Your task to perform on an android device: open app "Pandora - Music & Podcasts" Image 0: 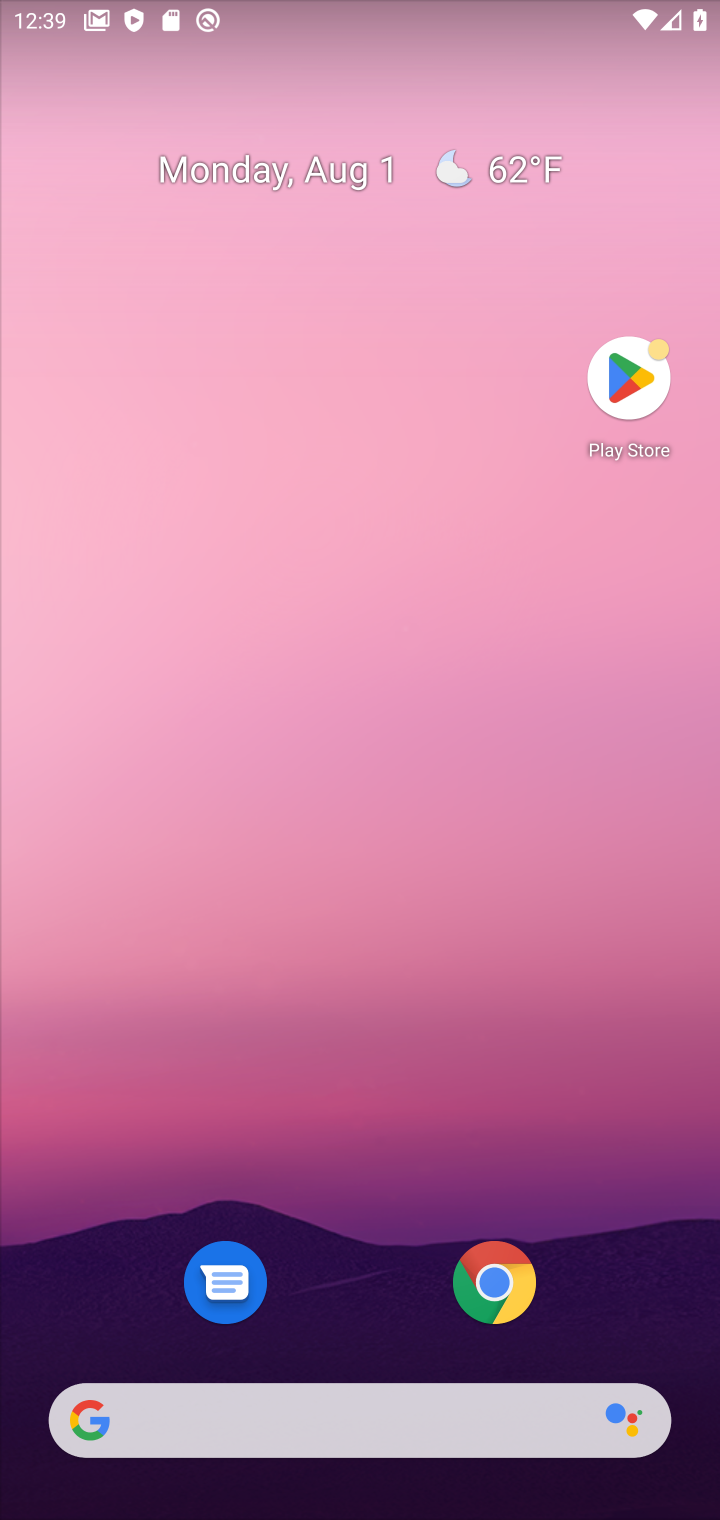
Step 0: drag from (306, 998) to (284, 23)
Your task to perform on an android device: open app "Pandora - Music & Podcasts" Image 1: 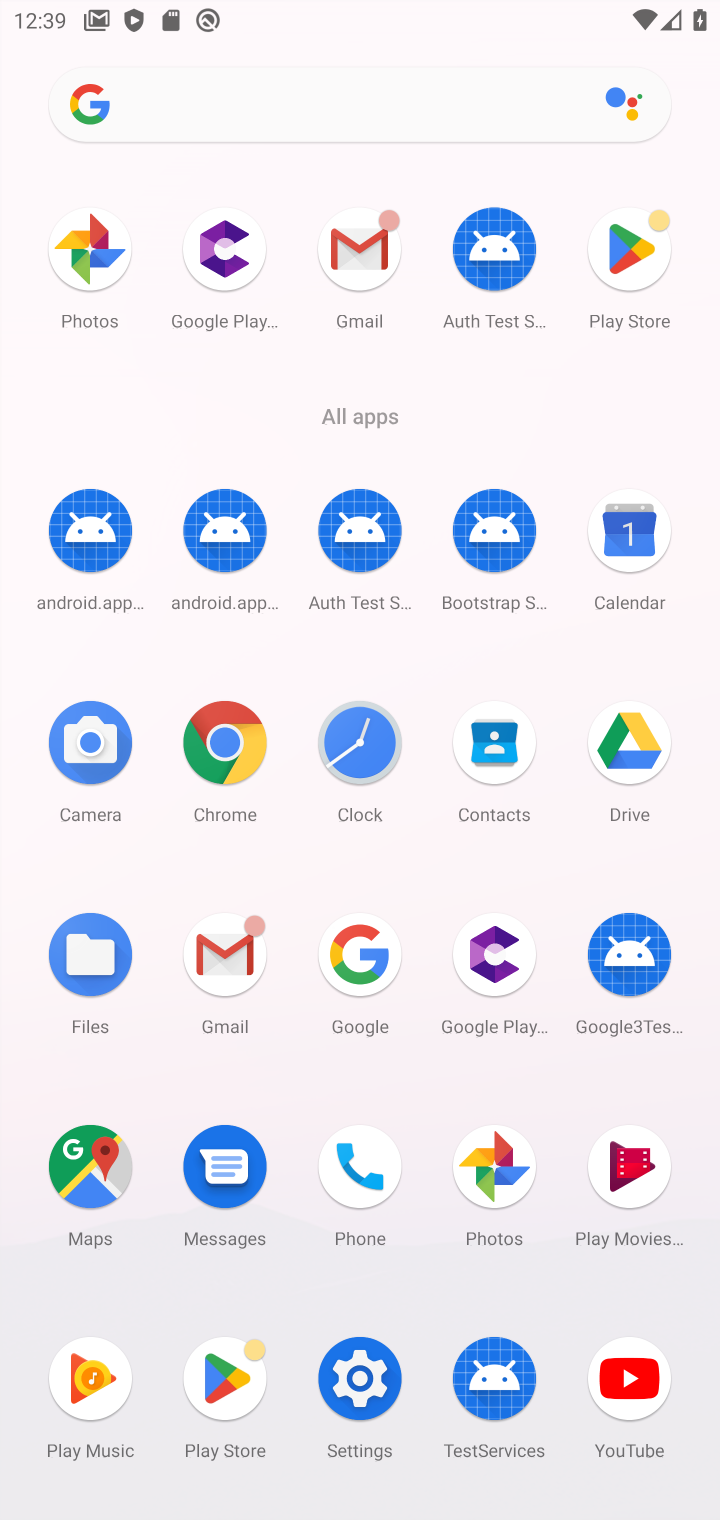
Step 1: click (227, 1376)
Your task to perform on an android device: open app "Pandora - Music & Podcasts" Image 2: 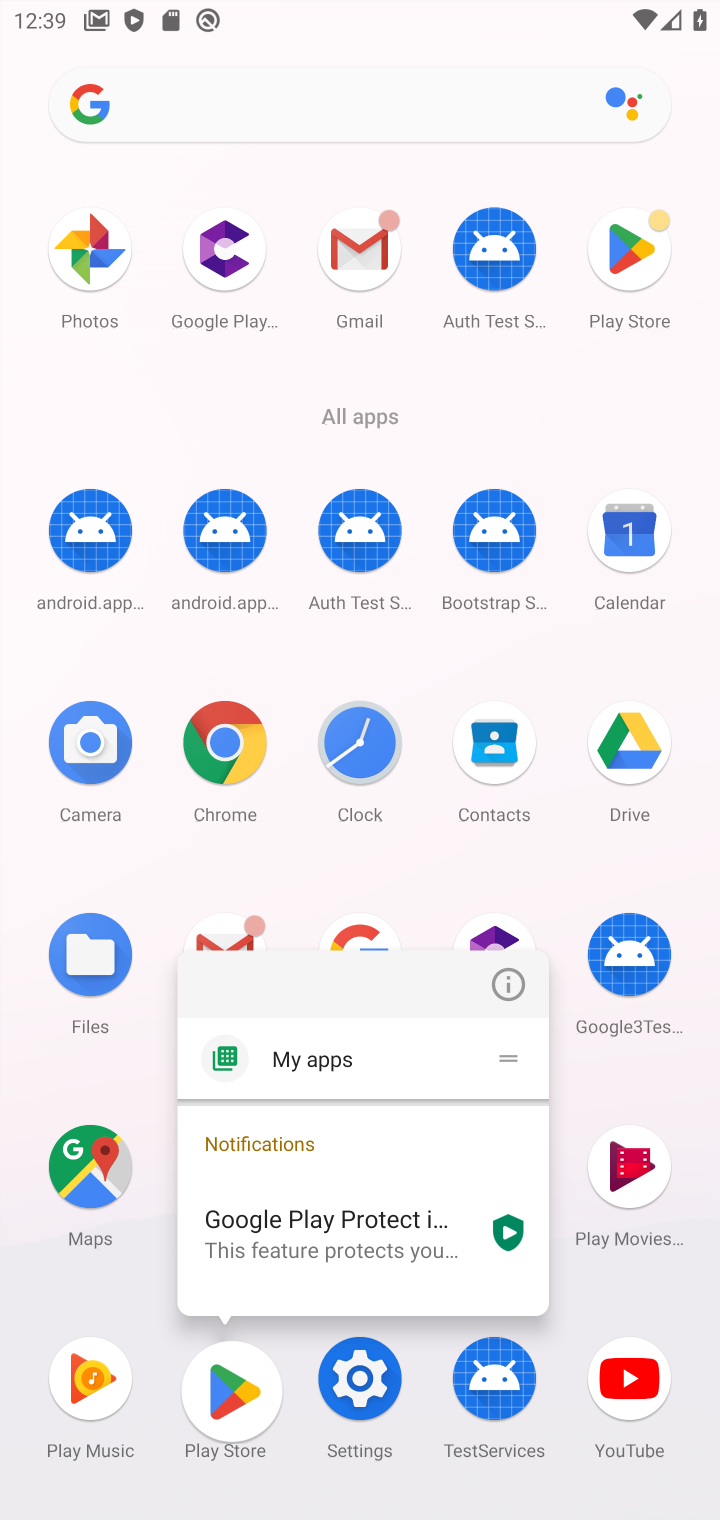
Step 2: click (227, 1391)
Your task to perform on an android device: open app "Pandora - Music & Podcasts" Image 3: 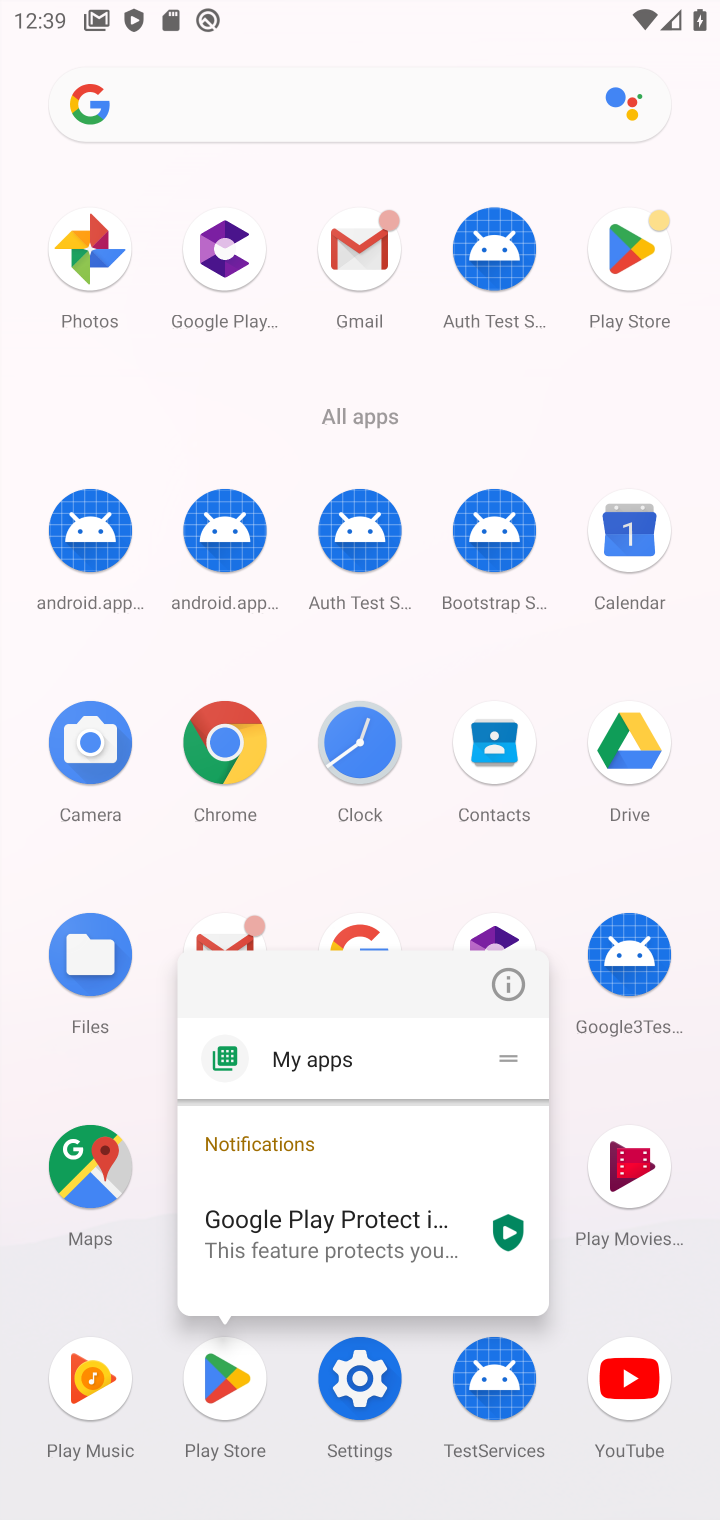
Step 3: click (225, 1370)
Your task to perform on an android device: open app "Pandora - Music & Podcasts" Image 4: 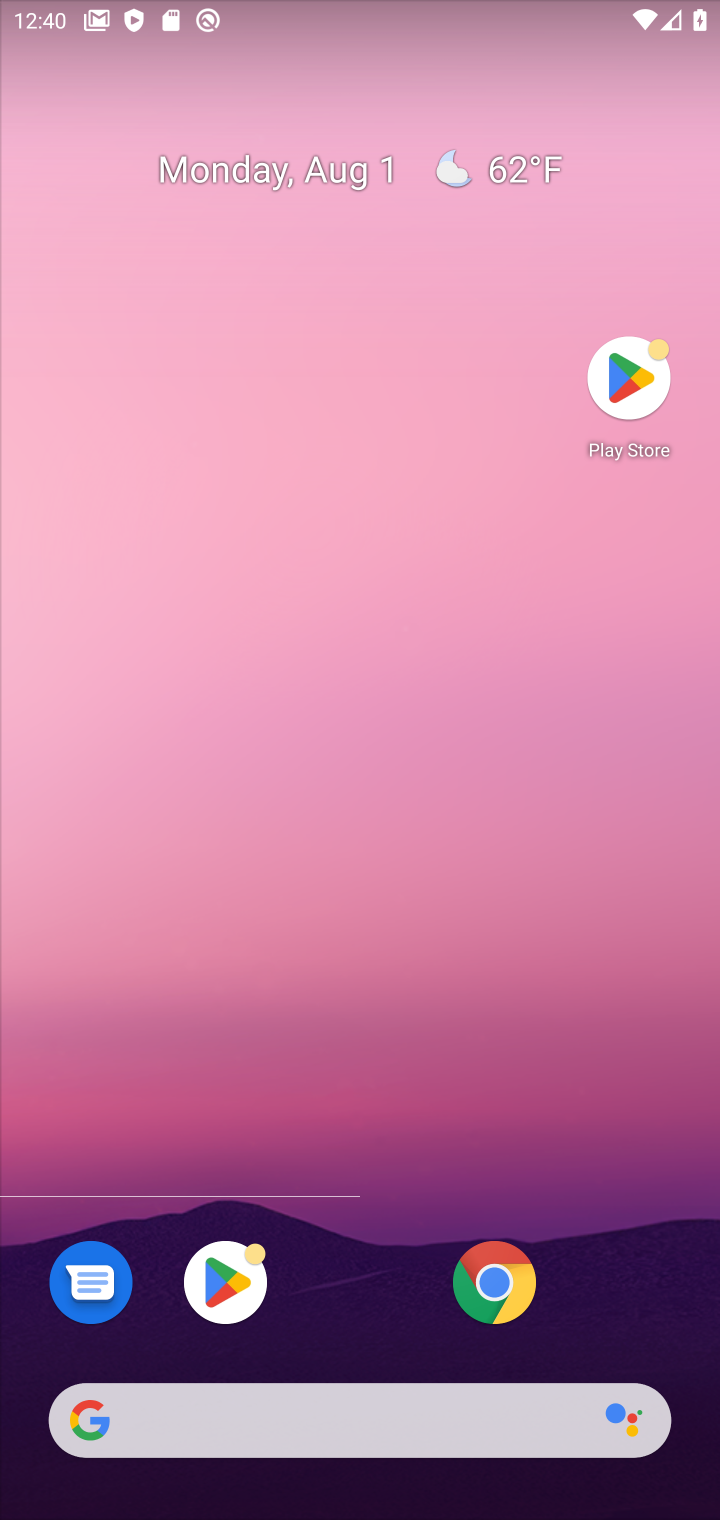
Step 4: click (621, 378)
Your task to perform on an android device: open app "Pandora - Music & Podcasts" Image 5: 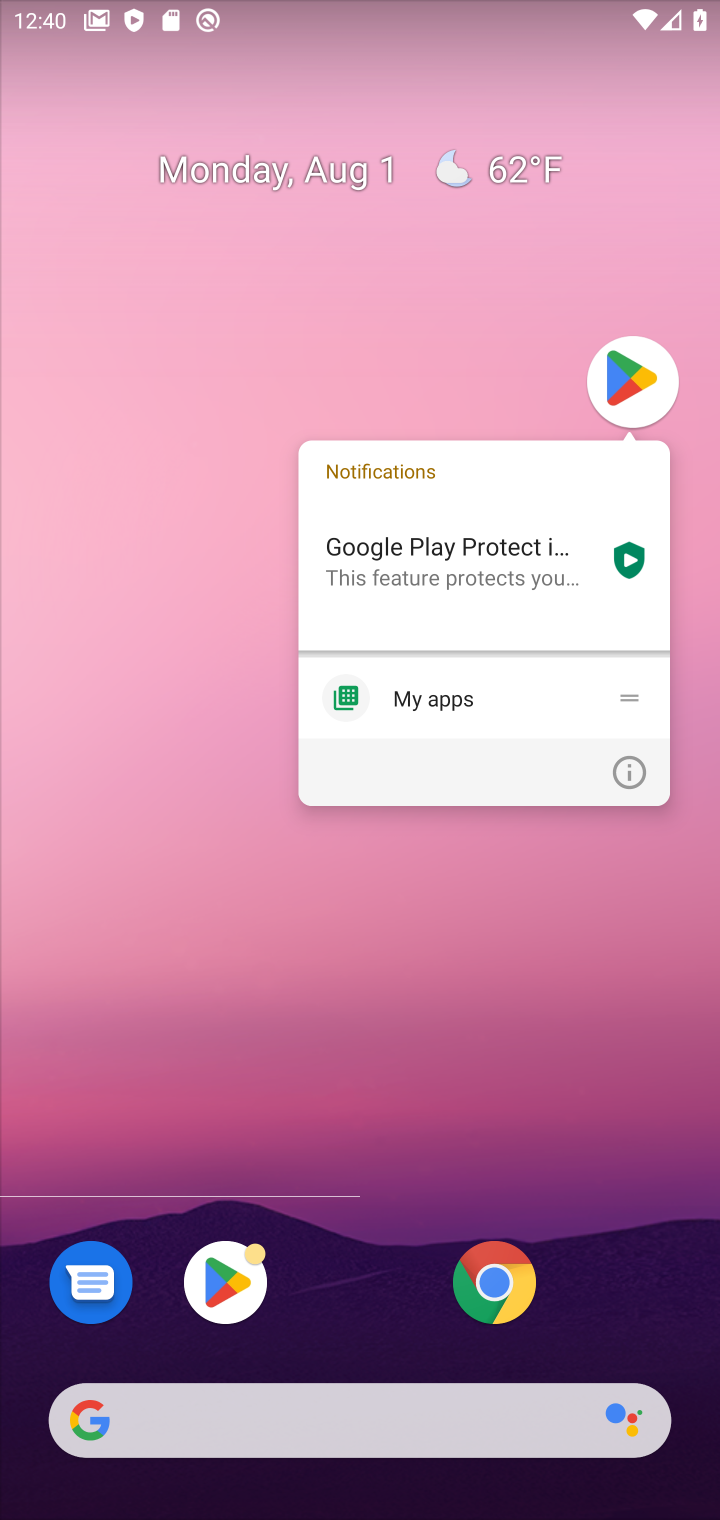
Step 5: click (635, 393)
Your task to perform on an android device: open app "Pandora - Music & Podcasts" Image 6: 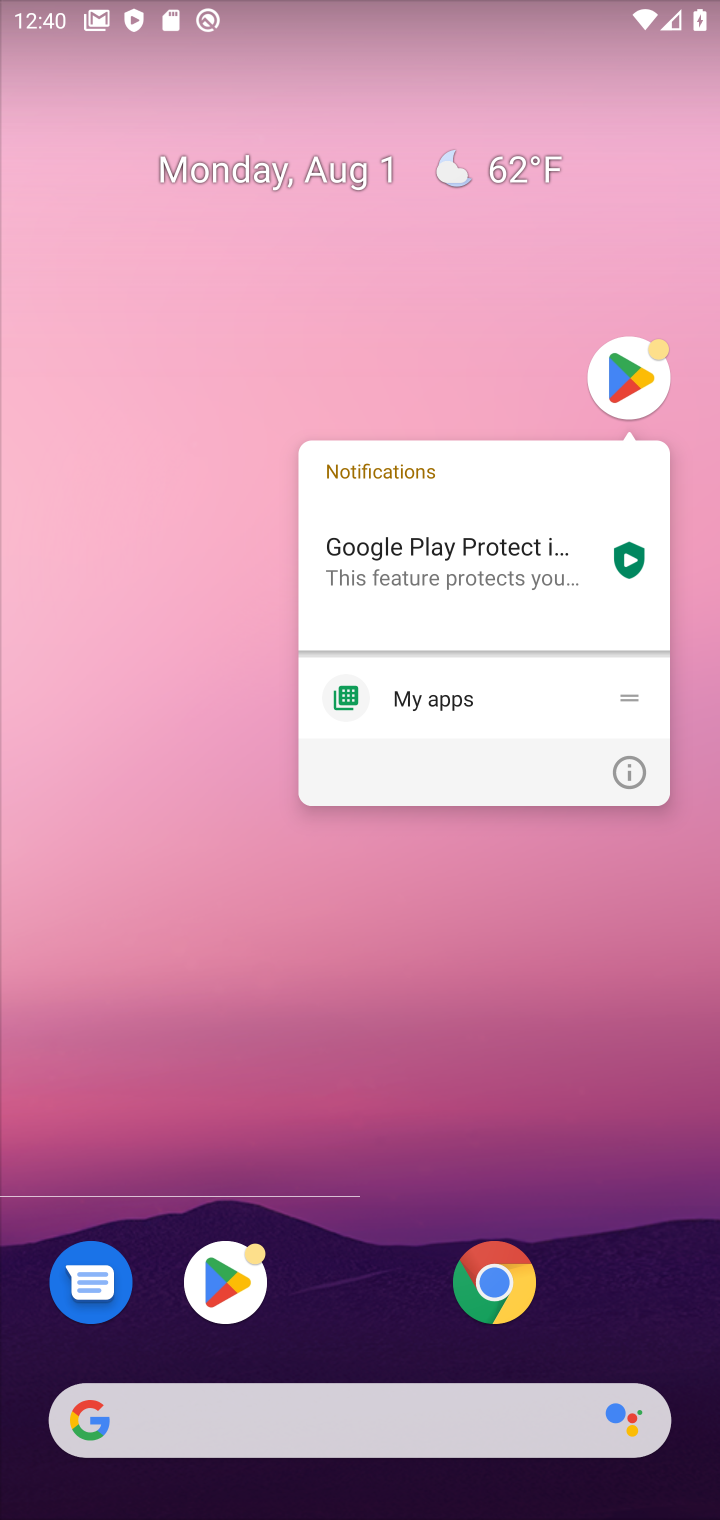
Step 6: click (627, 386)
Your task to perform on an android device: open app "Pandora - Music & Podcasts" Image 7: 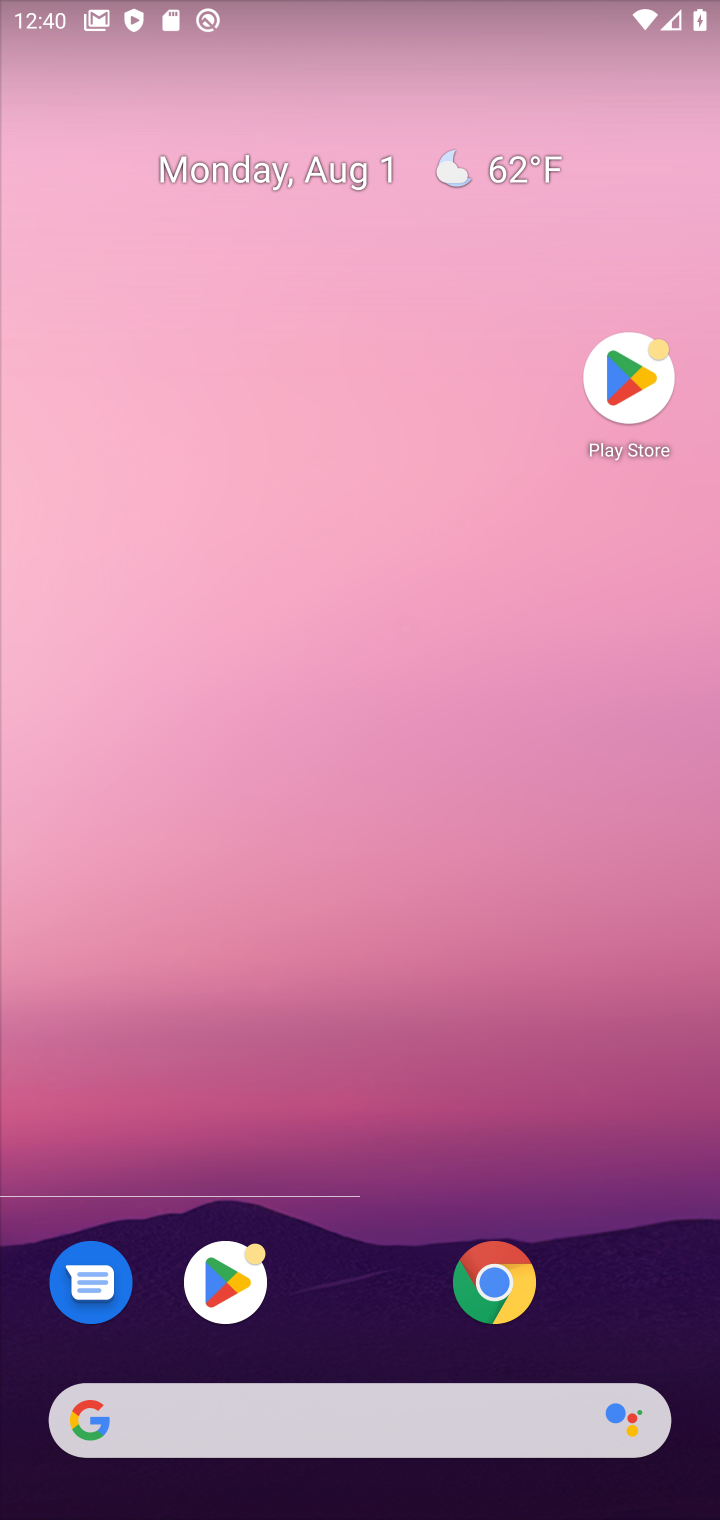
Step 7: click (624, 356)
Your task to perform on an android device: open app "Pandora - Music & Podcasts" Image 8: 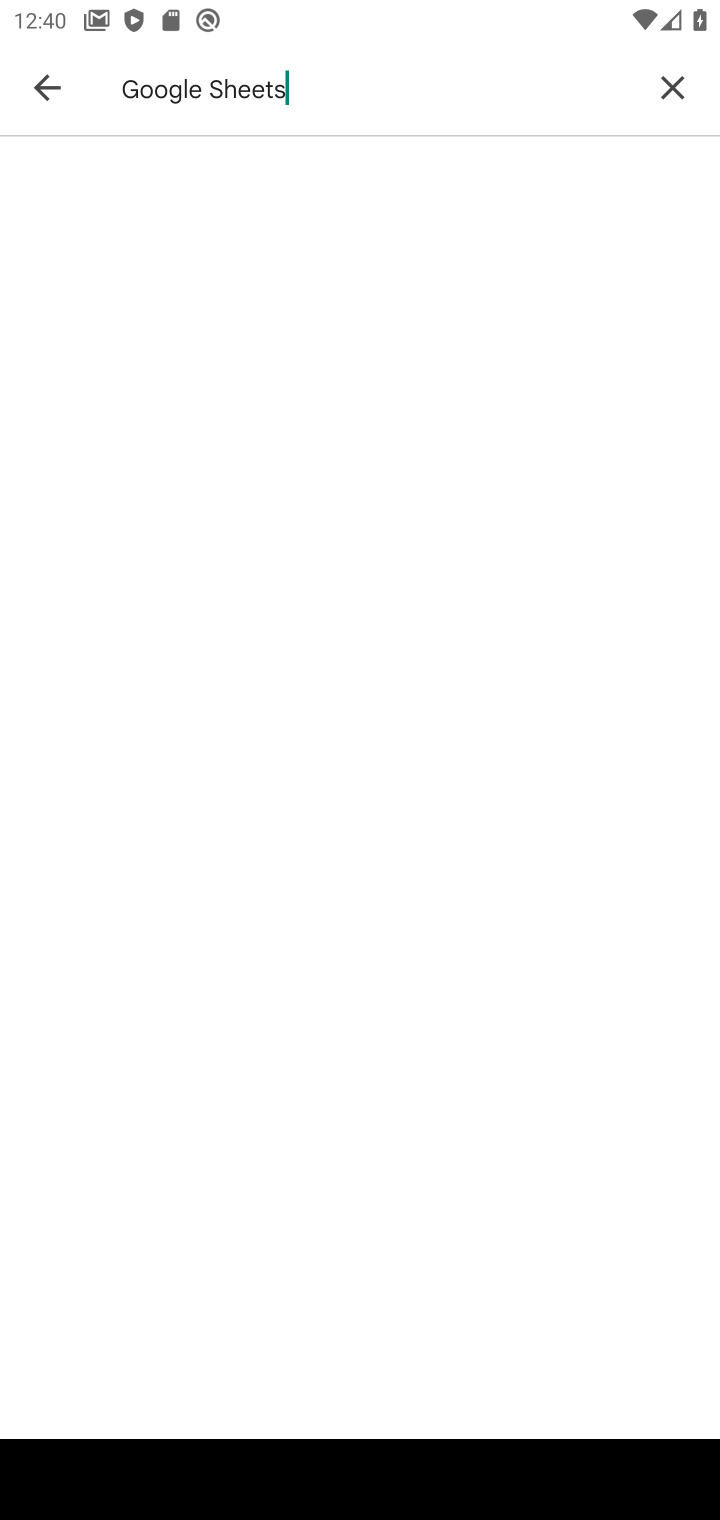
Step 8: click (45, 82)
Your task to perform on an android device: open app "Pandora - Music & Podcasts" Image 9: 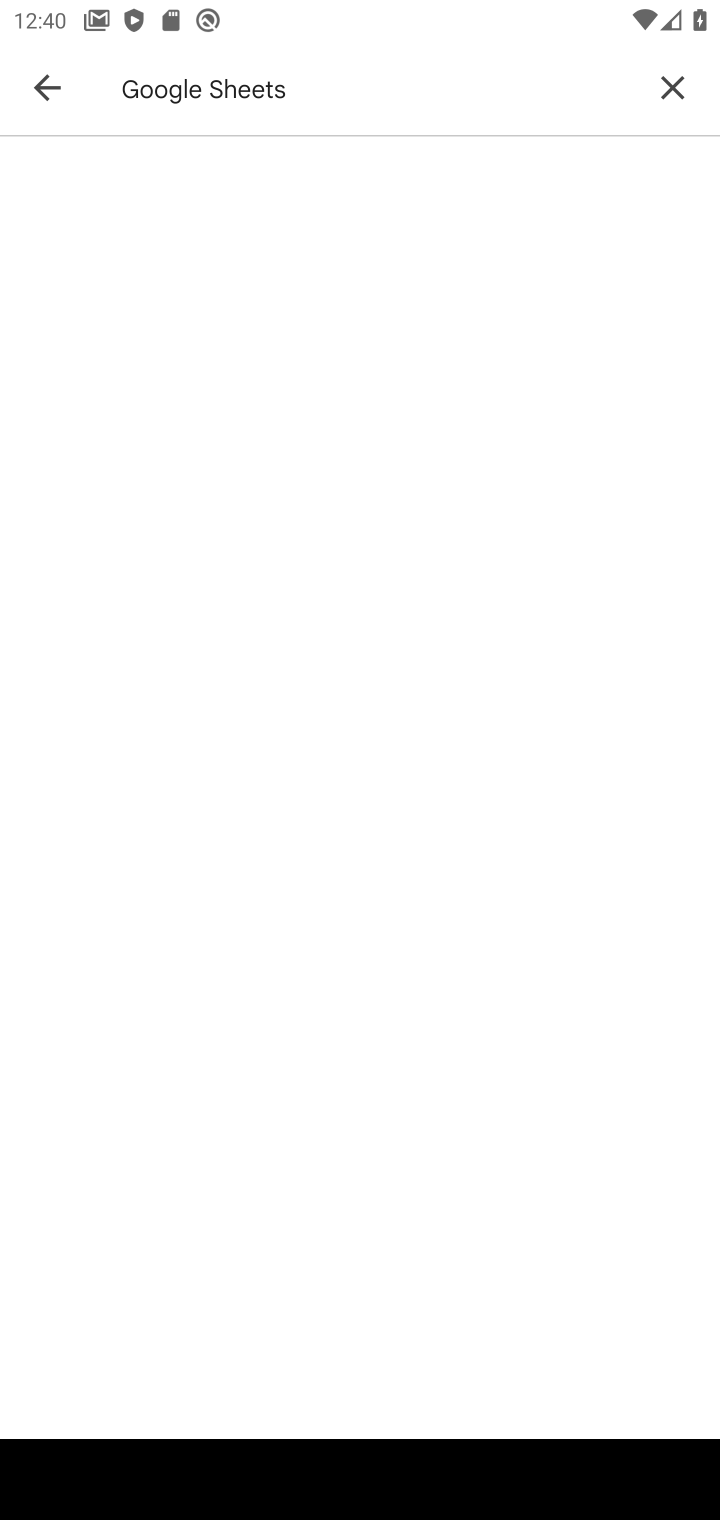
Step 9: click (45, 82)
Your task to perform on an android device: open app "Pandora - Music & Podcasts" Image 10: 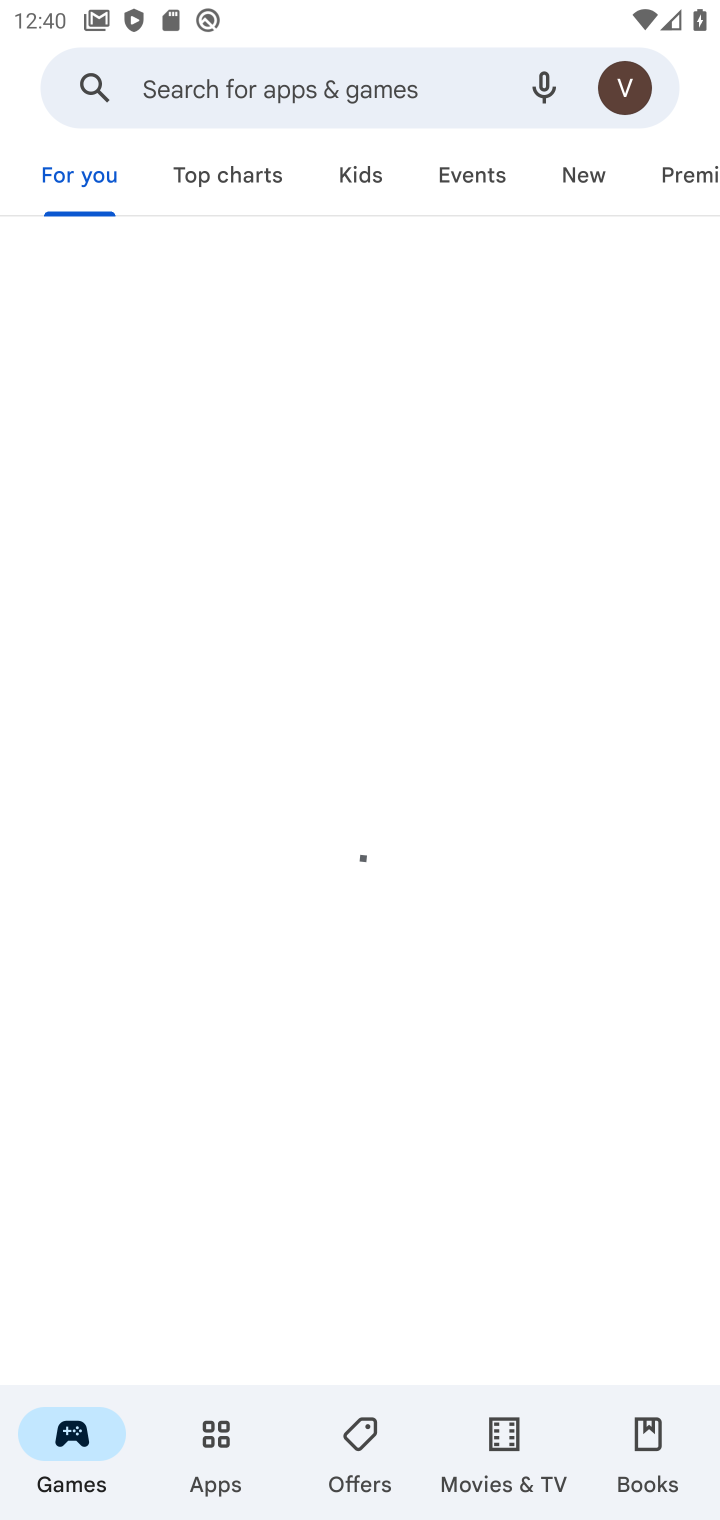
Step 10: click (244, 78)
Your task to perform on an android device: open app "Pandora - Music & Podcasts" Image 11: 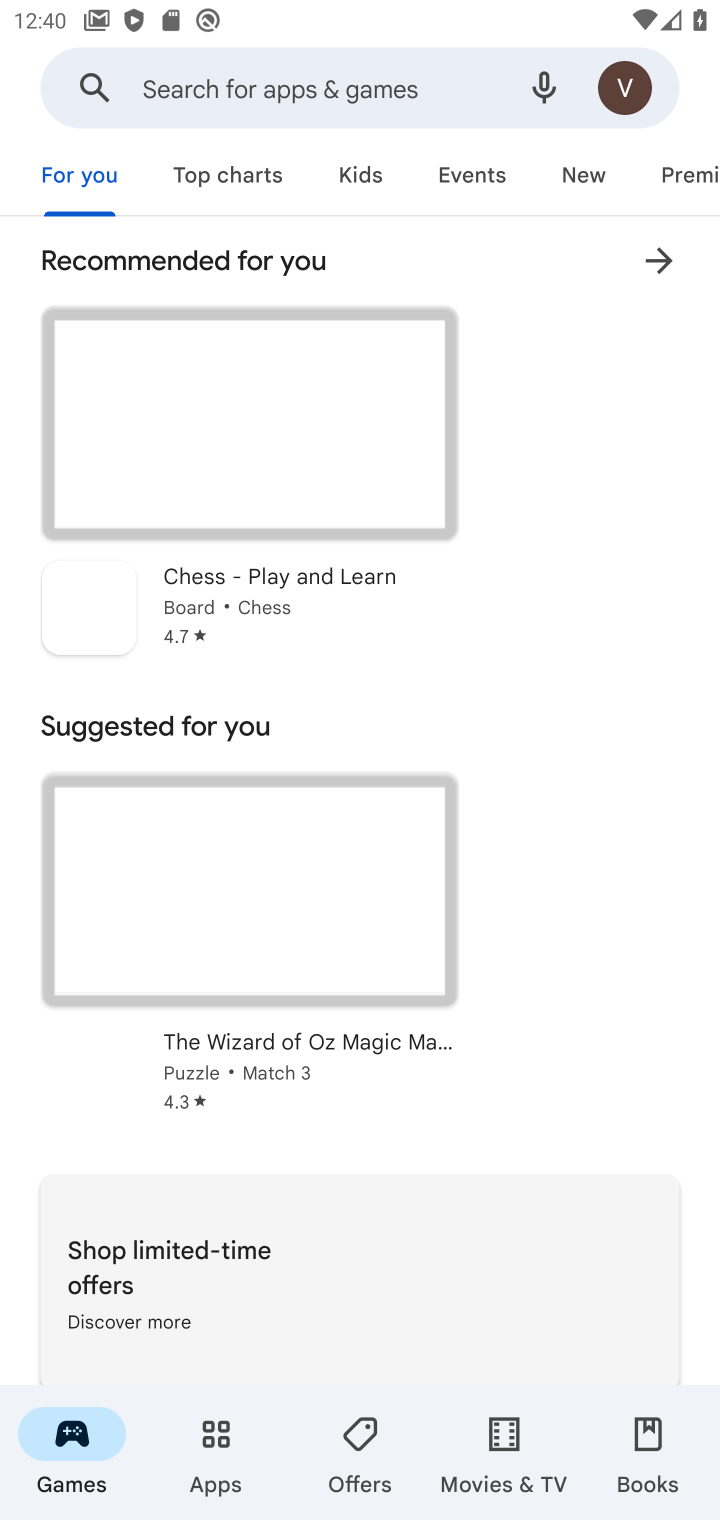
Step 11: click (242, 80)
Your task to perform on an android device: open app "Pandora - Music & Podcasts" Image 12: 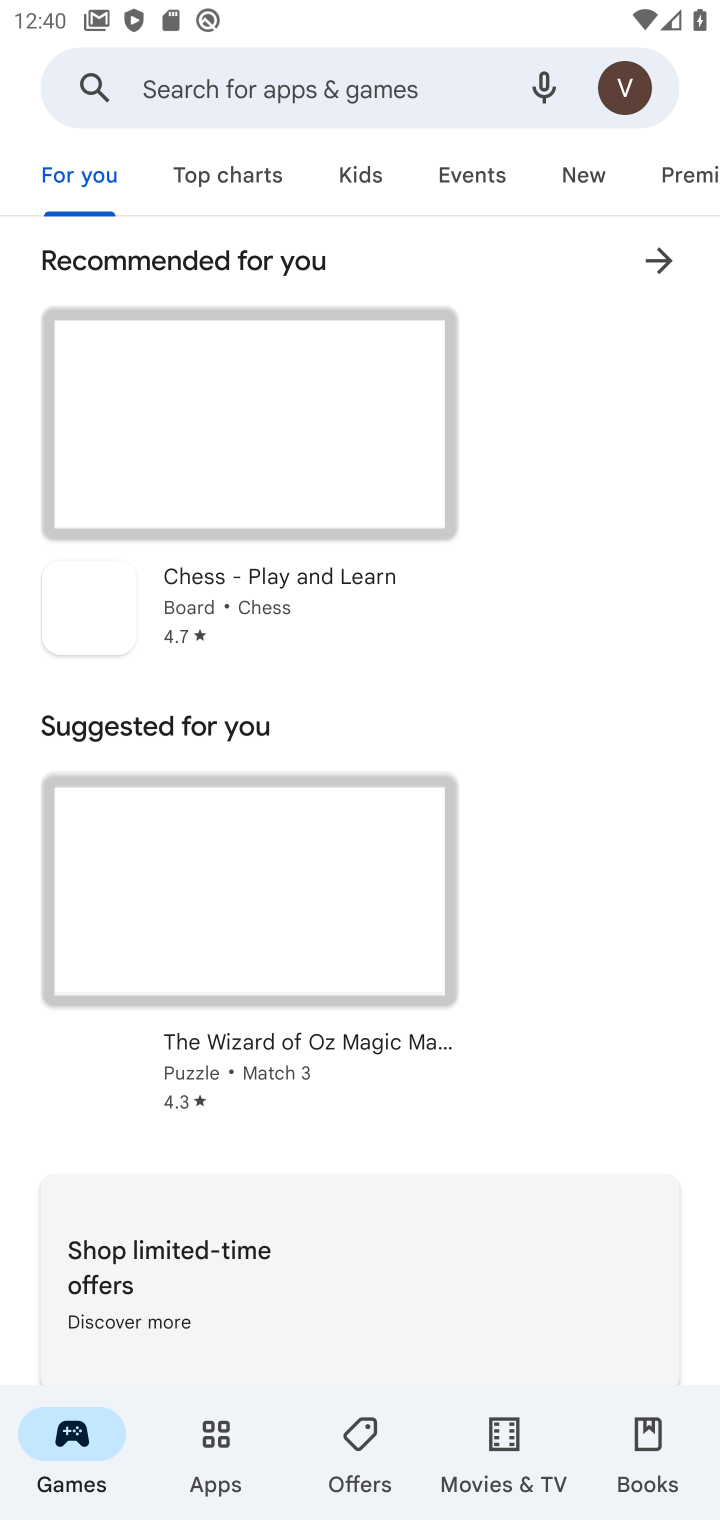
Step 12: click (242, 80)
Your task to perform on an android device: open app "Pandora - Music & Podcasts" Image 13: 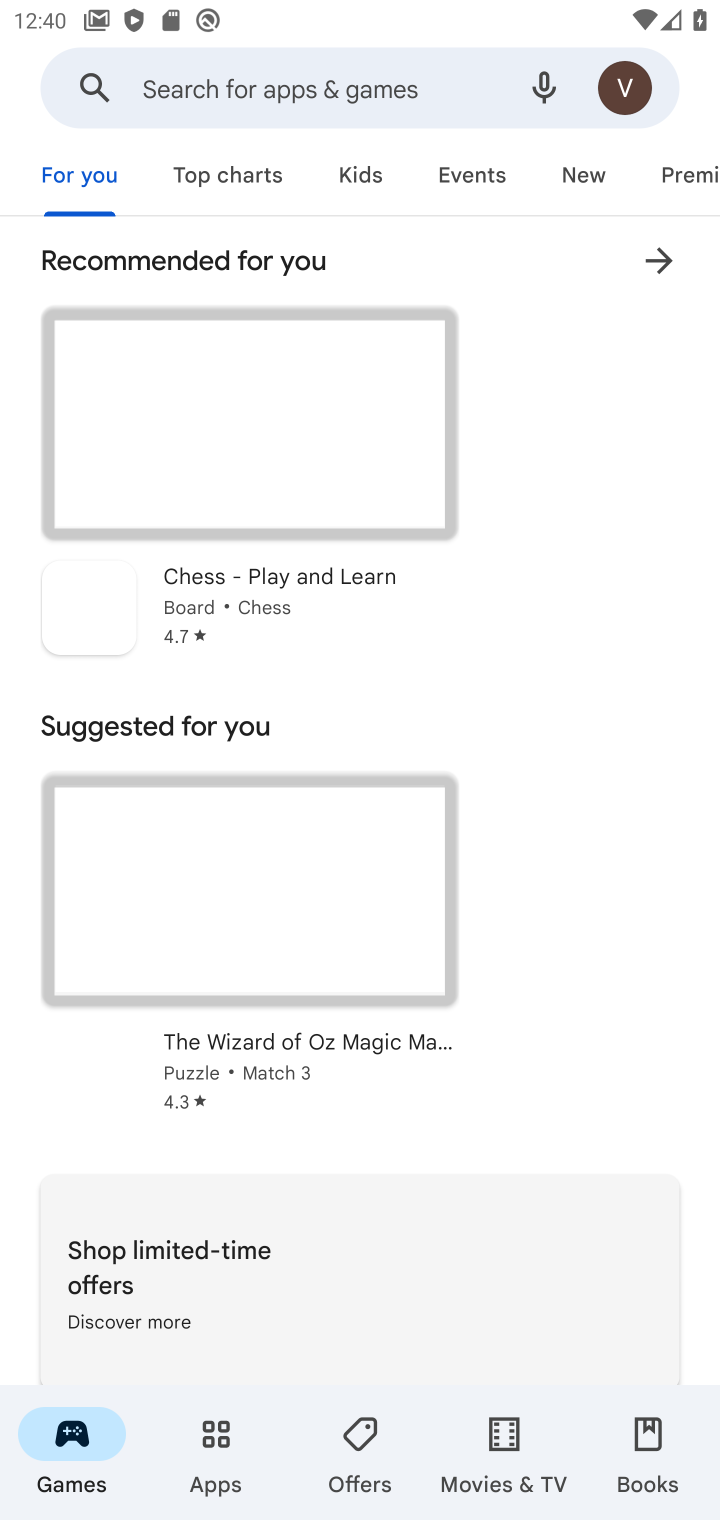
Step 13: click (242, 81)
Your task to perform on an android device: open app "Pandora - Music & Podcasts" Image 14: 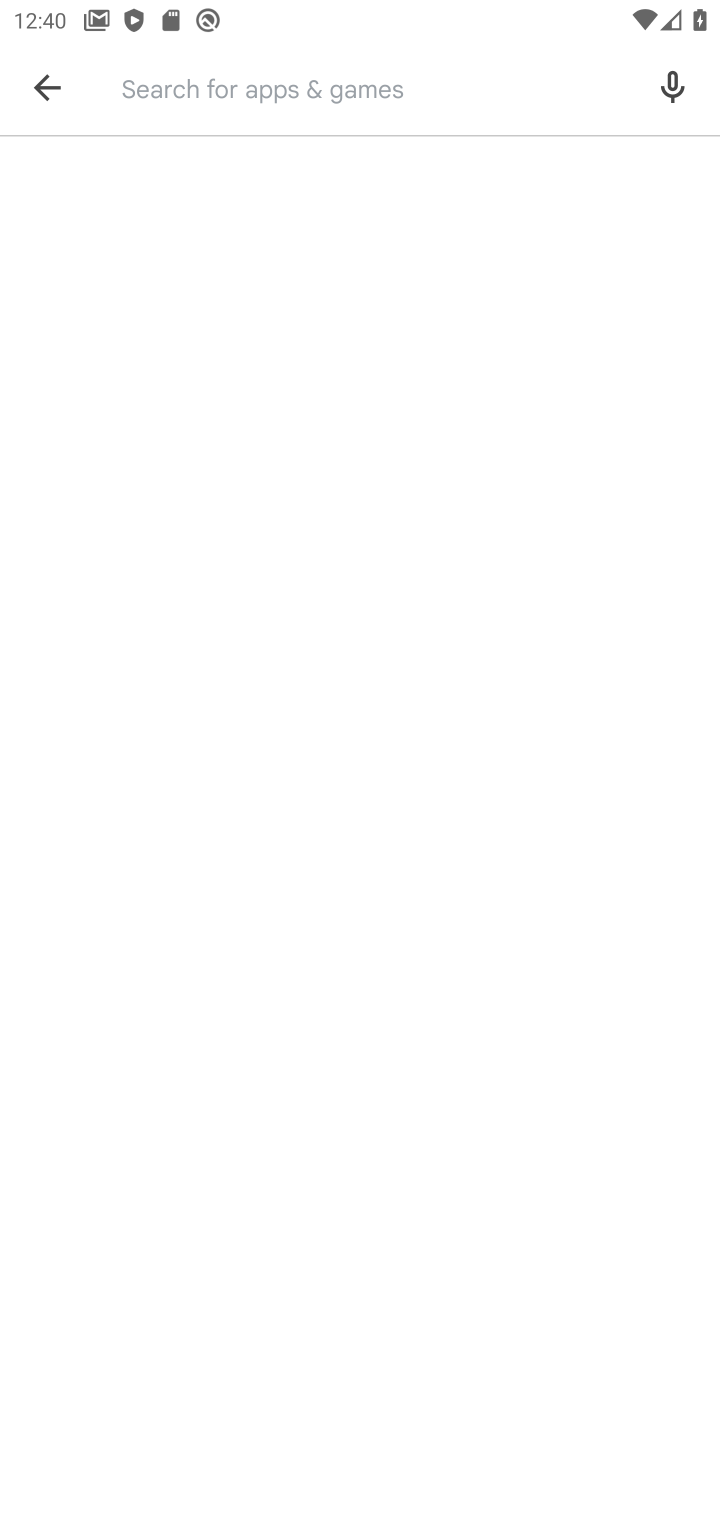
Step 14: click (211, 86)
Your task to perform on an android device: open app "Pandora - Music & Podcasts" Image 15: 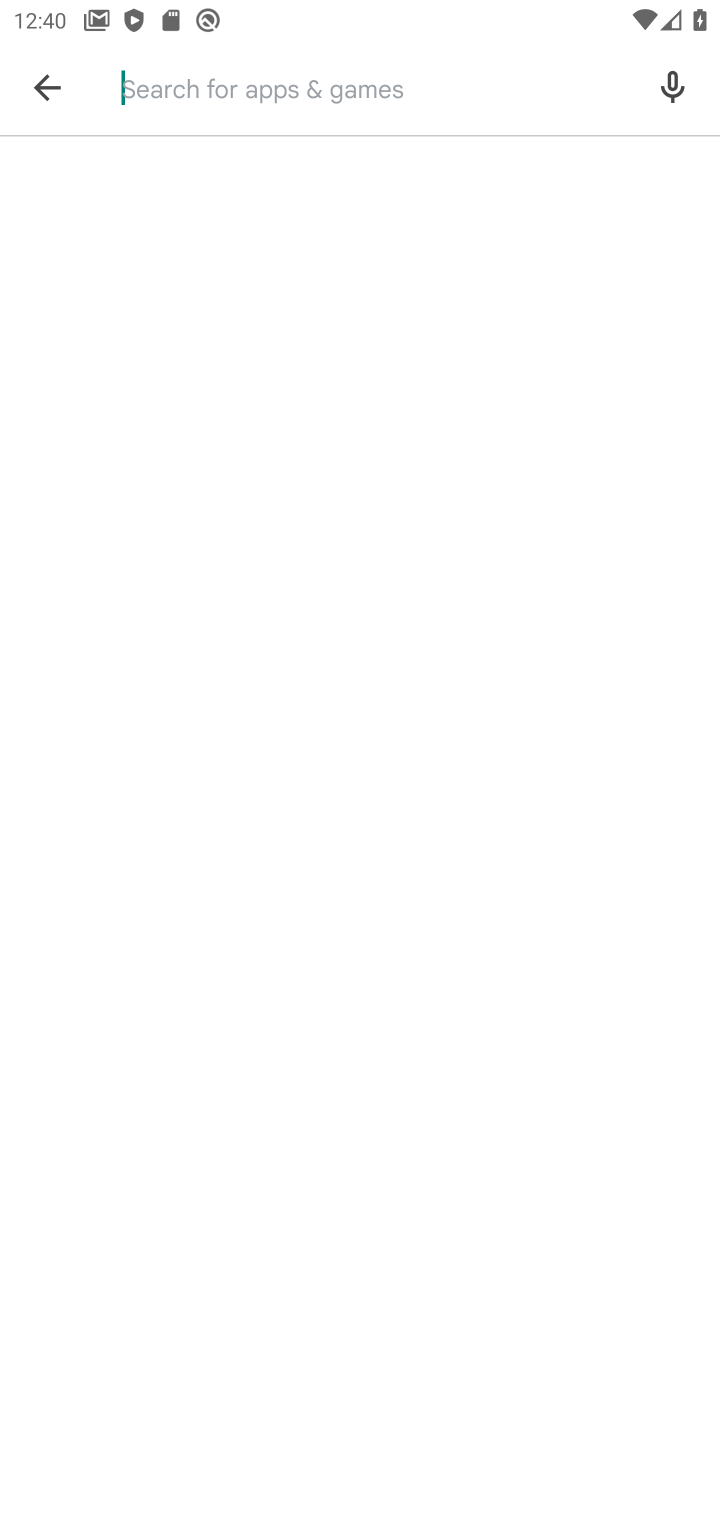
Step 15: click (217, 88)
Your task to perform on an android device: open app "Pandora - Music & Podcasts" Image 16: 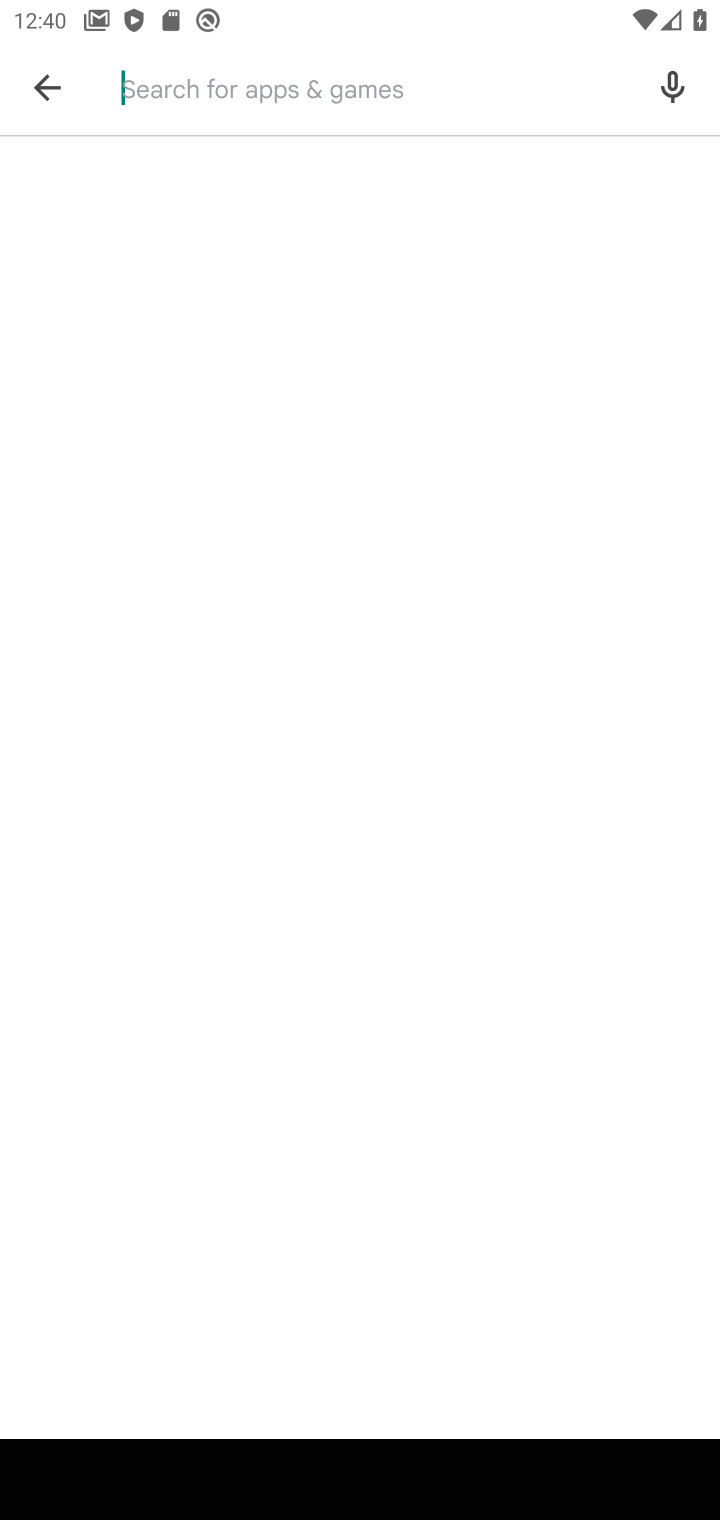
Step 16: click (219, 90)
Your task to perform on an android device: open app "Pandora - Music & Podcasts" Image 17: 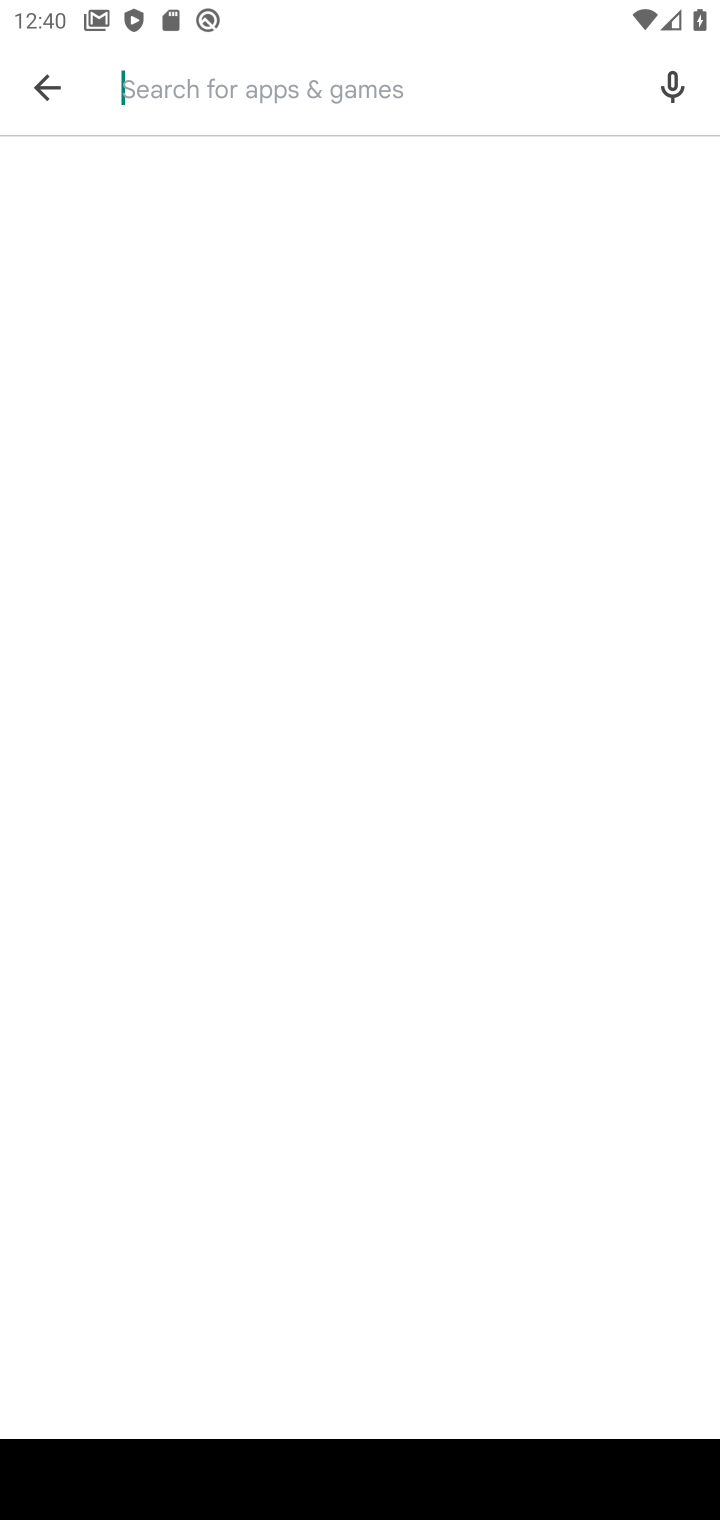
Step 17: type "pandora"
Your task to perform on an android device: open app "Pandora - Music & Podcasts" Image 18: 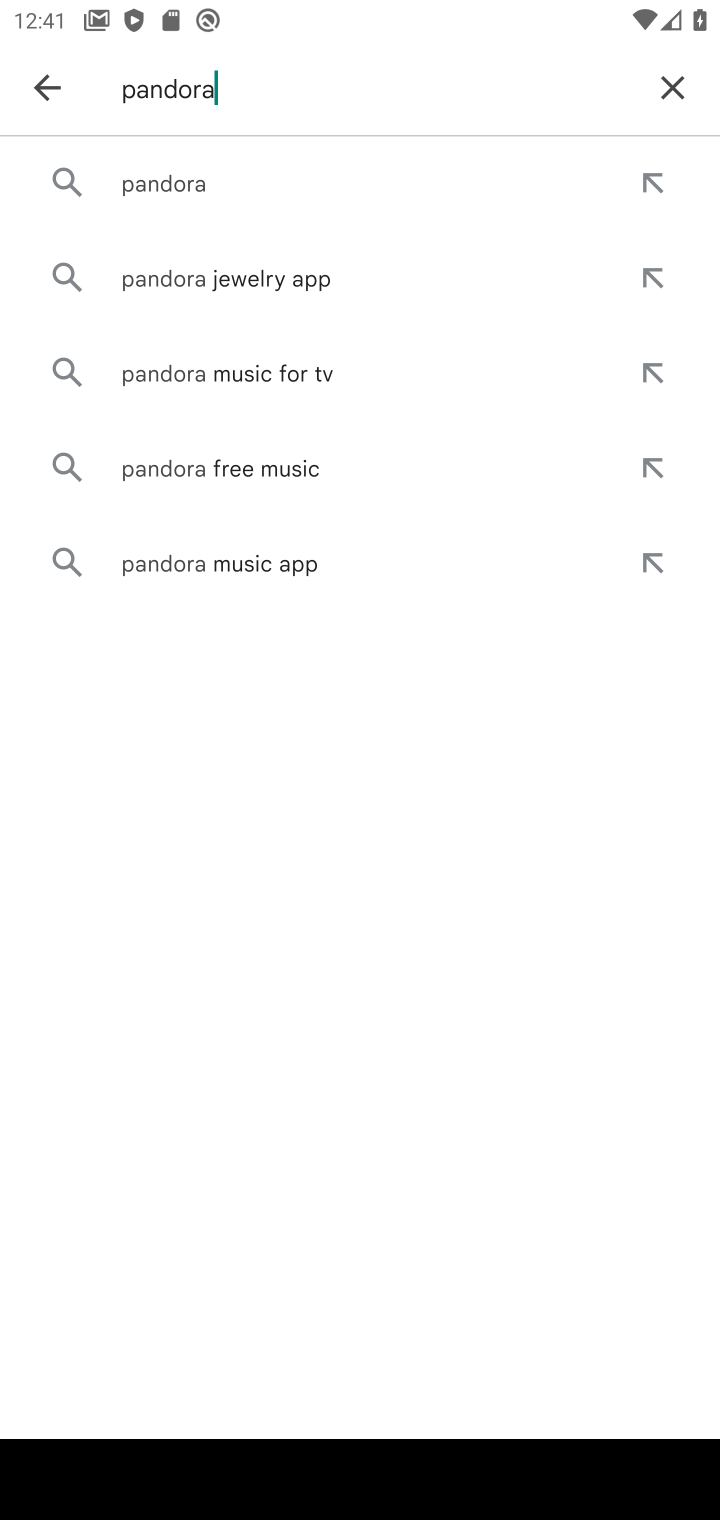
Step 18: click (175, 174)
Your task to perform on an android device: open app "Pandora - Music & Podcasts" Image 19: 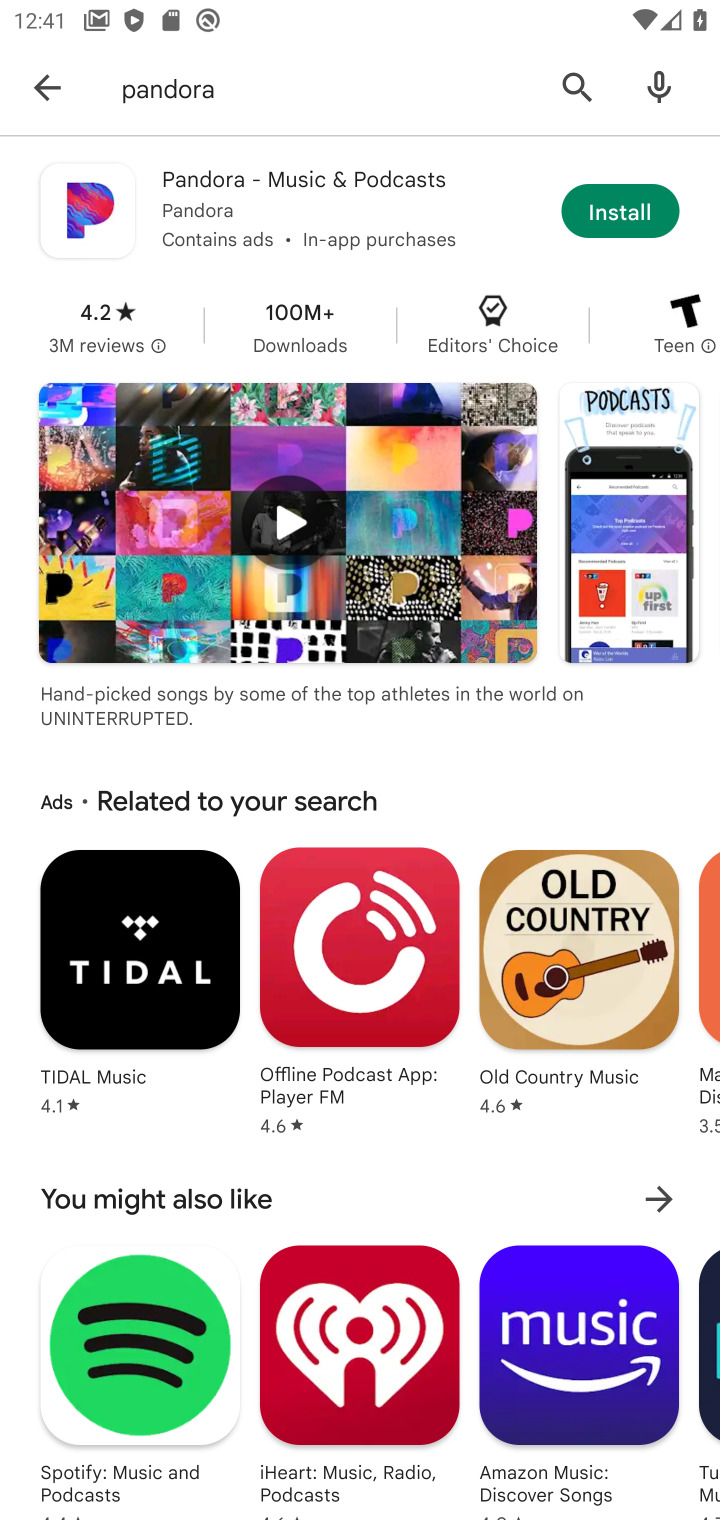
Step 19: click (628, 218)
Your task to perform on an android device: open app "Pandora - Music & Podcasts" Image 20: 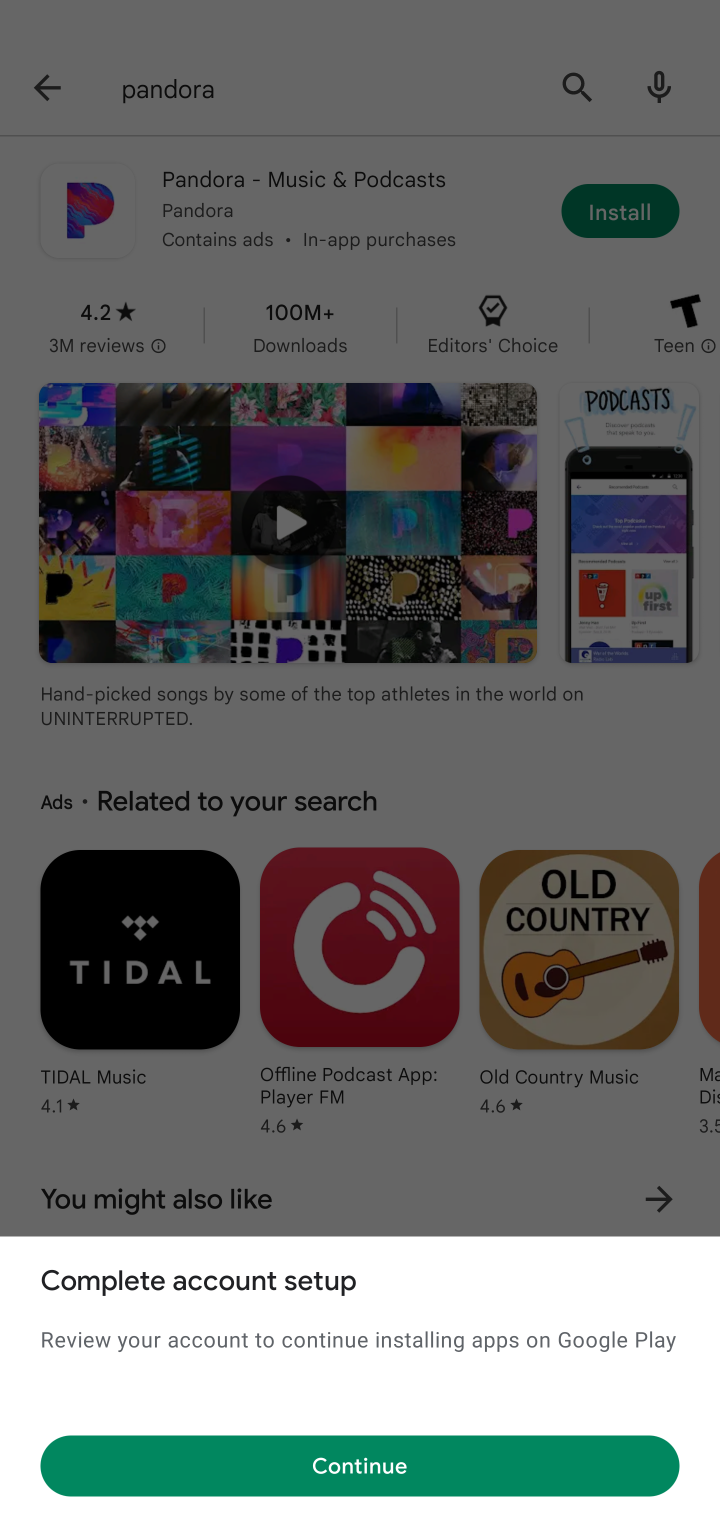
Step 20: drag from (400, 527) to (410, 1174)
Your task to perform on an android device: open app "Pandora - Music & Podcasts" Image 21: 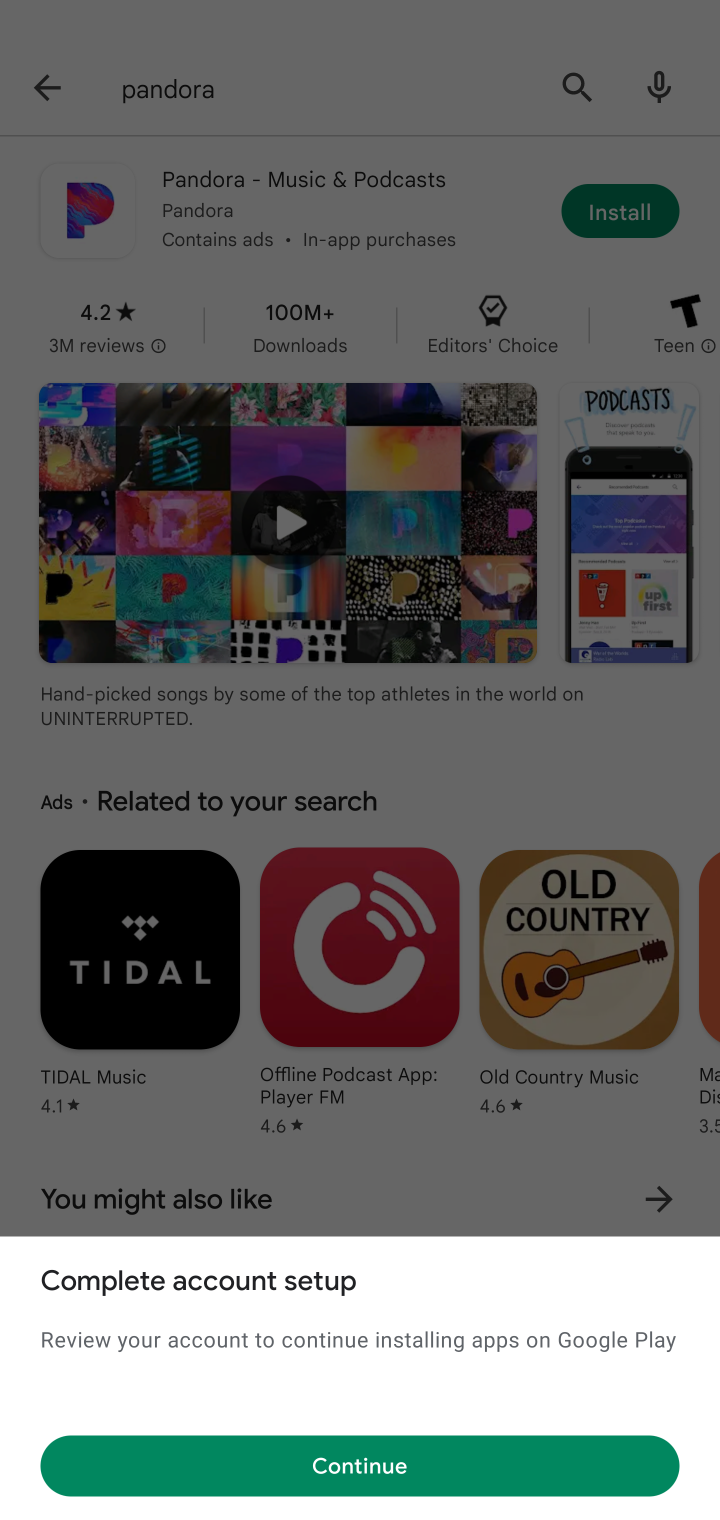
Step 21: click (385, 1451)
Your task to perform on an android device: open app "Pandora - Music & Podcasts" Image 22: 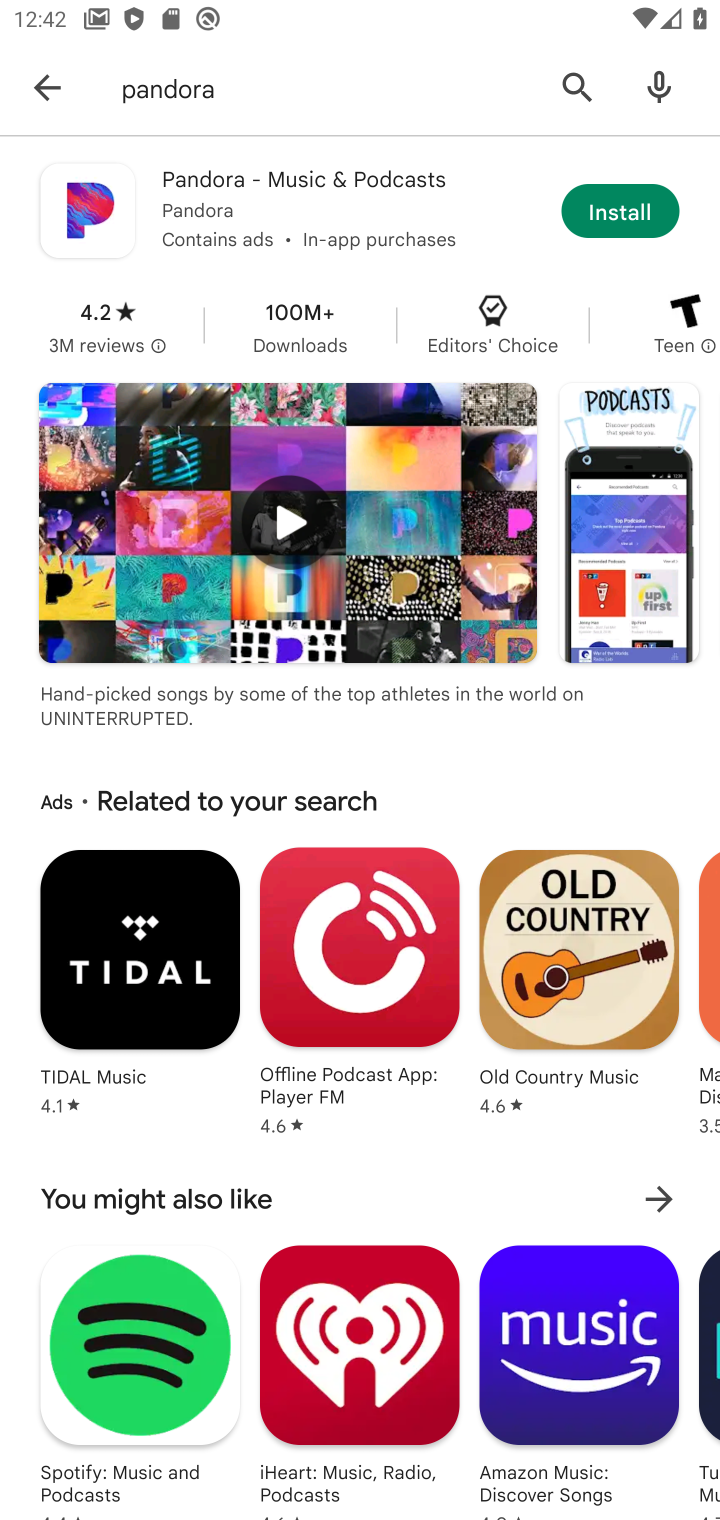
Step 22: click (385, 1451)
Your task to perform on an android device: open app "Pandora - Music & Podcasts" Image 23: 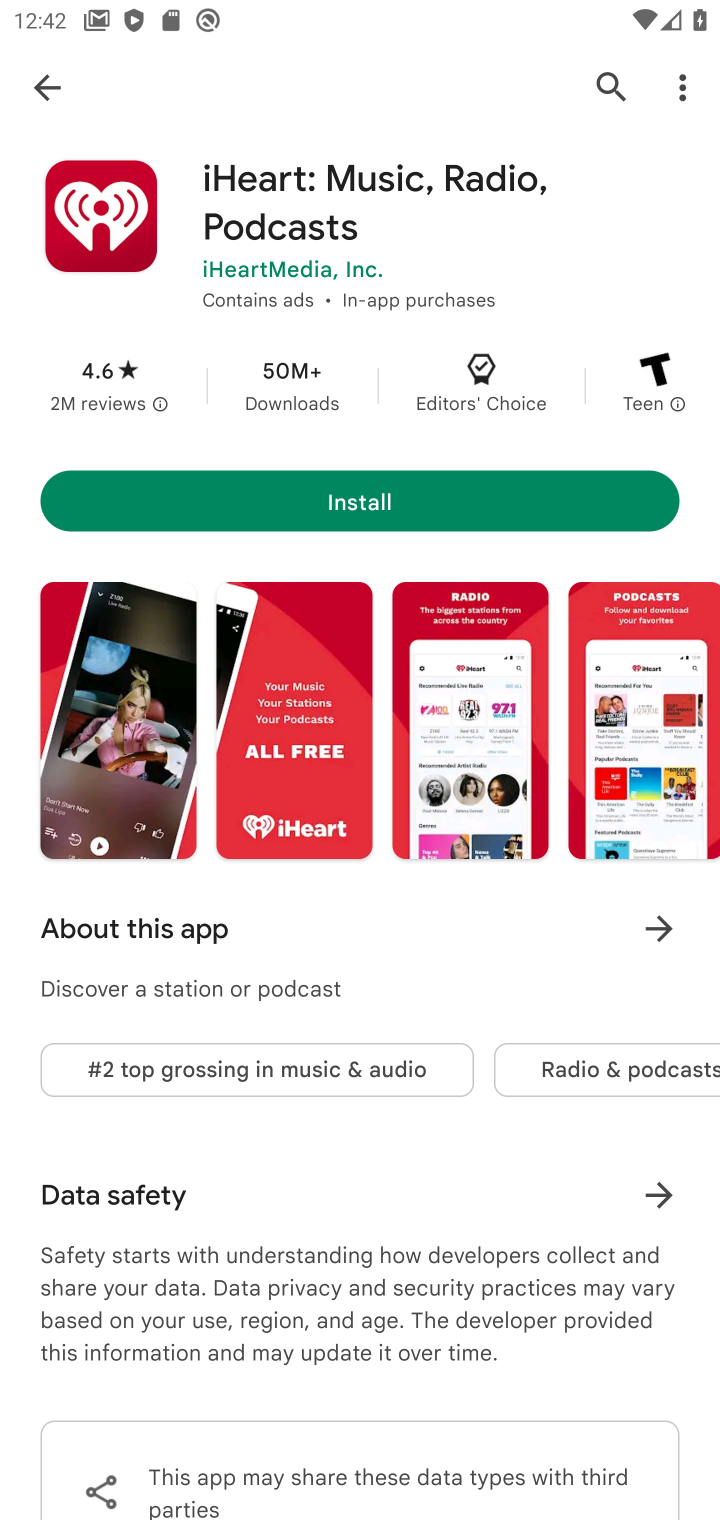
Step 23: task complete